Your task to perform on an android device: read, delete, or share a saved page in the chrome app Image 0: 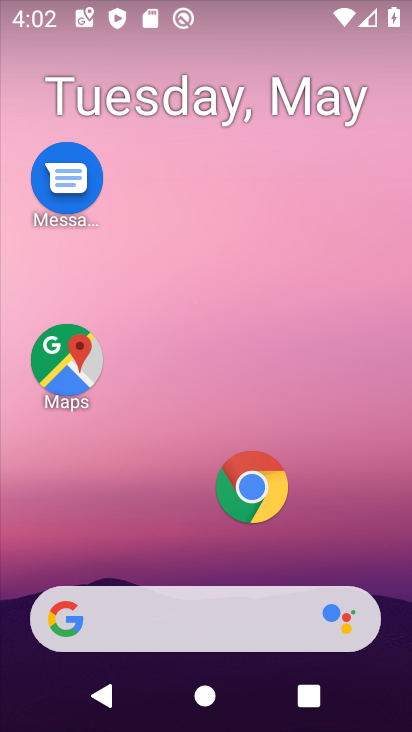
Step 0: click (249, 489)
Your task to perform on an android device: read, delete, or share a saved page in the chrome app Image 1: 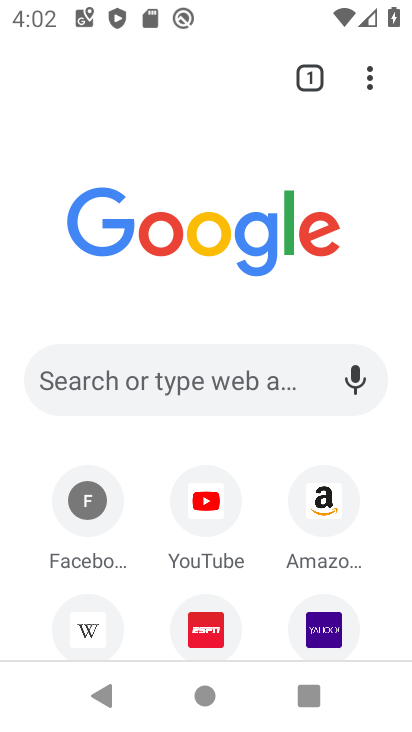
Step 1: click (369, 85)
Your task to perform on an android device: read, delete, or share a saved page in the chrome app Image 2: 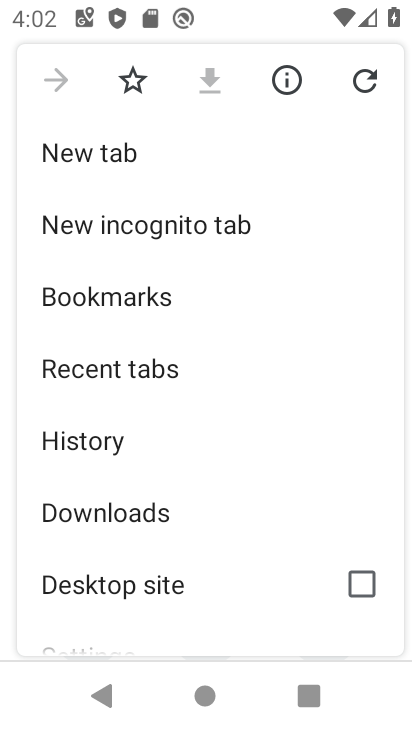
Step 2: click (113, 344)
Your task to perform on an android device: read, delete, or share a saved page in the chrome app Image 3: 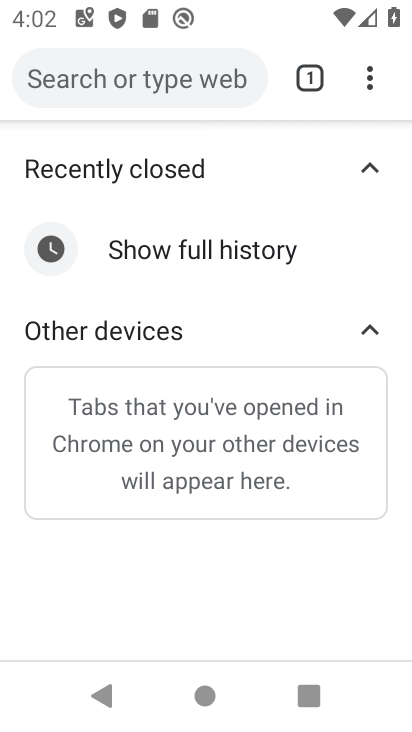
Step 3: click (371, 83)
Your task to perform on an android device: read, delete, or share a saved page in the chrome app Image 4: 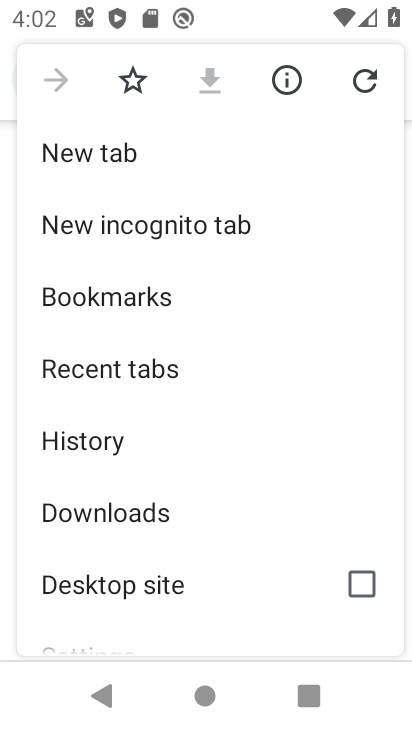
Step 4: task complete